Your task to perform on an android device: Do I have any events today? Image 0: 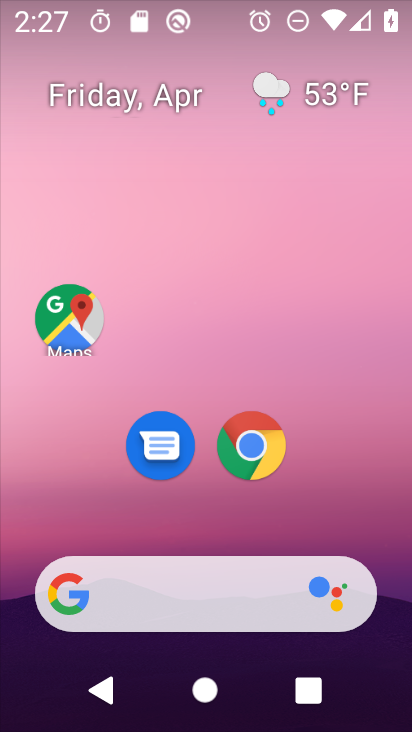
Step 0: drag from (371, 534) to (359, 107)
Your task to perform on an android device: Do I have any events today? Image 1: 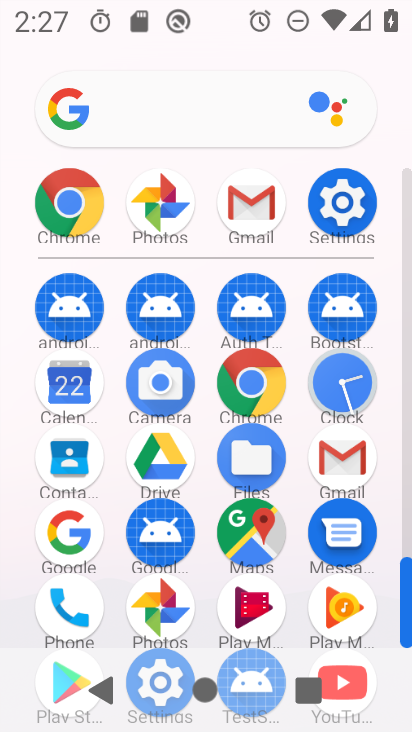
Step 1: click (79, 400)
Your task to perform on an android device: Do I have any events today? Image 2: 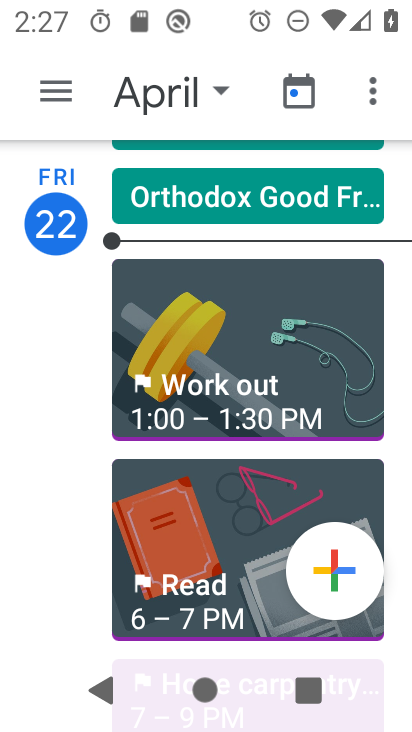
Step 2: click (225, 589)
Your task to perform on an android device: Do I have any events today? Image 3: 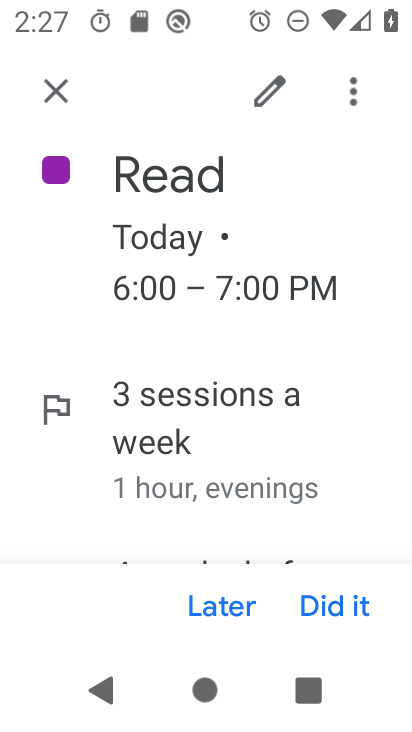
Step 3: task complete